Your task to perform on an android device: Find coffee shops on Maps Image 0: 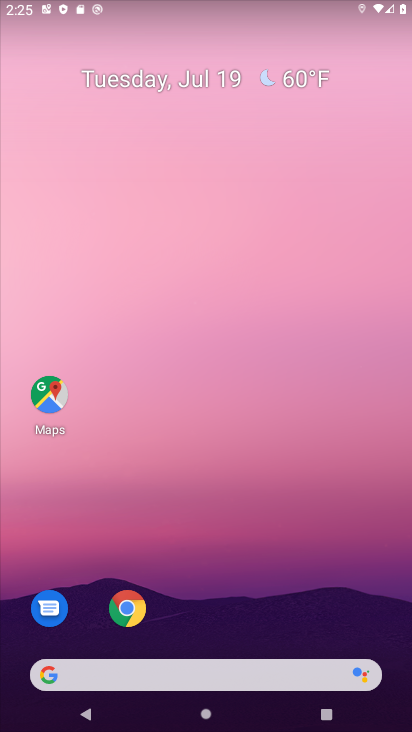
Step 0: drag from (234, 642) to (279, 76)
Your task to perform on an android device: Find coffee shops on Maps Image 1: 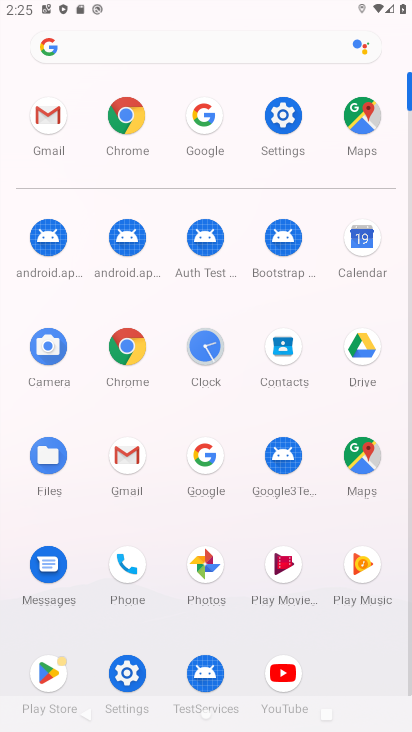
Step 1: click (364, 453)
Your task to perform on an android device: Find coffee shops on Maps Image 2: 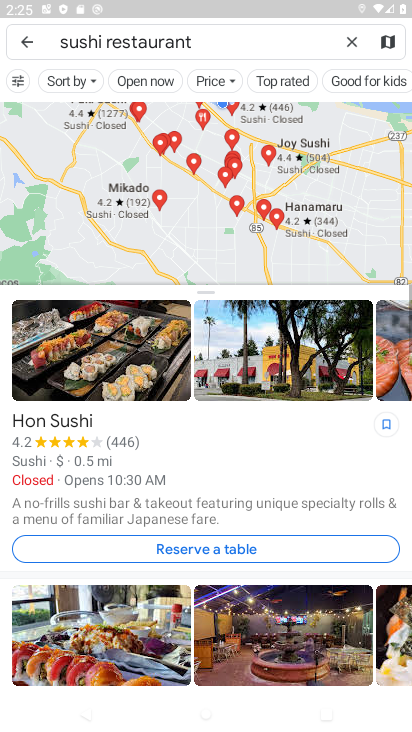
Step 2: click (25, 36)
Your task to perform on an android device: Find coffee shops on Maps Image 3: 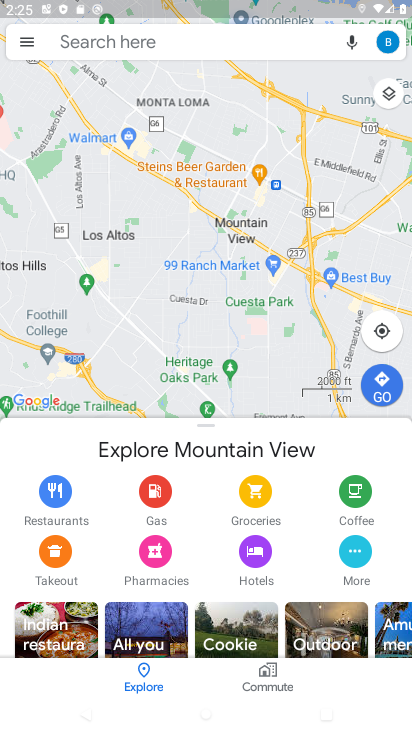
Step 3: click (103, 50)
Your task to perform on an android device: Find coffee shops on Maps Image 4: 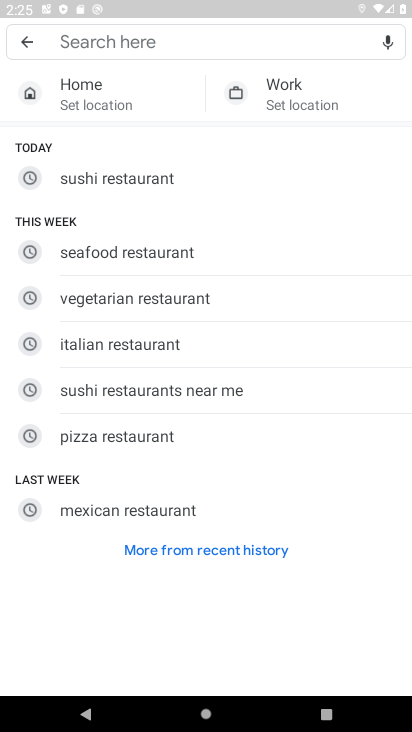
Step 4: type "coffee"
Your task to perform on an android device: Find coffee shops on Maps Image 5: 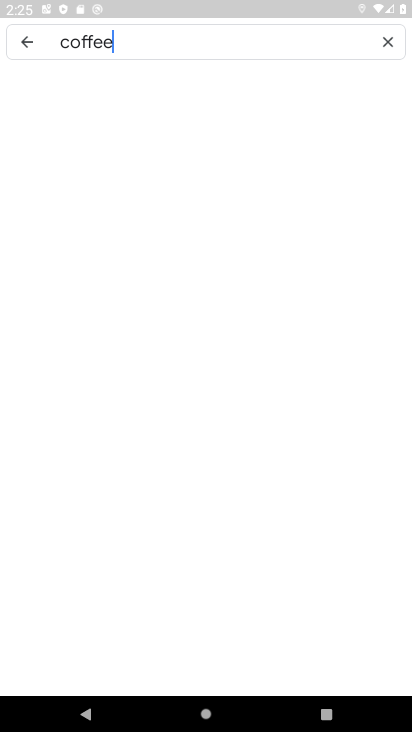
Step 5: press enter
Your task to perform on an android device: Find coffee shops on Maps Image 6: 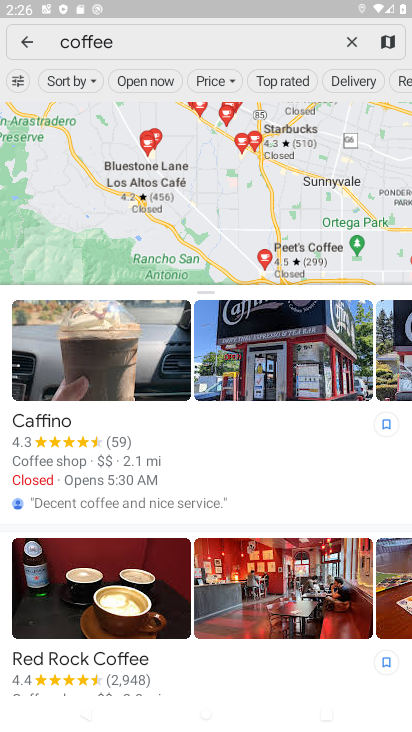
Step 6: task complete